Your task to perform on an android device: manage bookmarks in the chrome app Image 0: 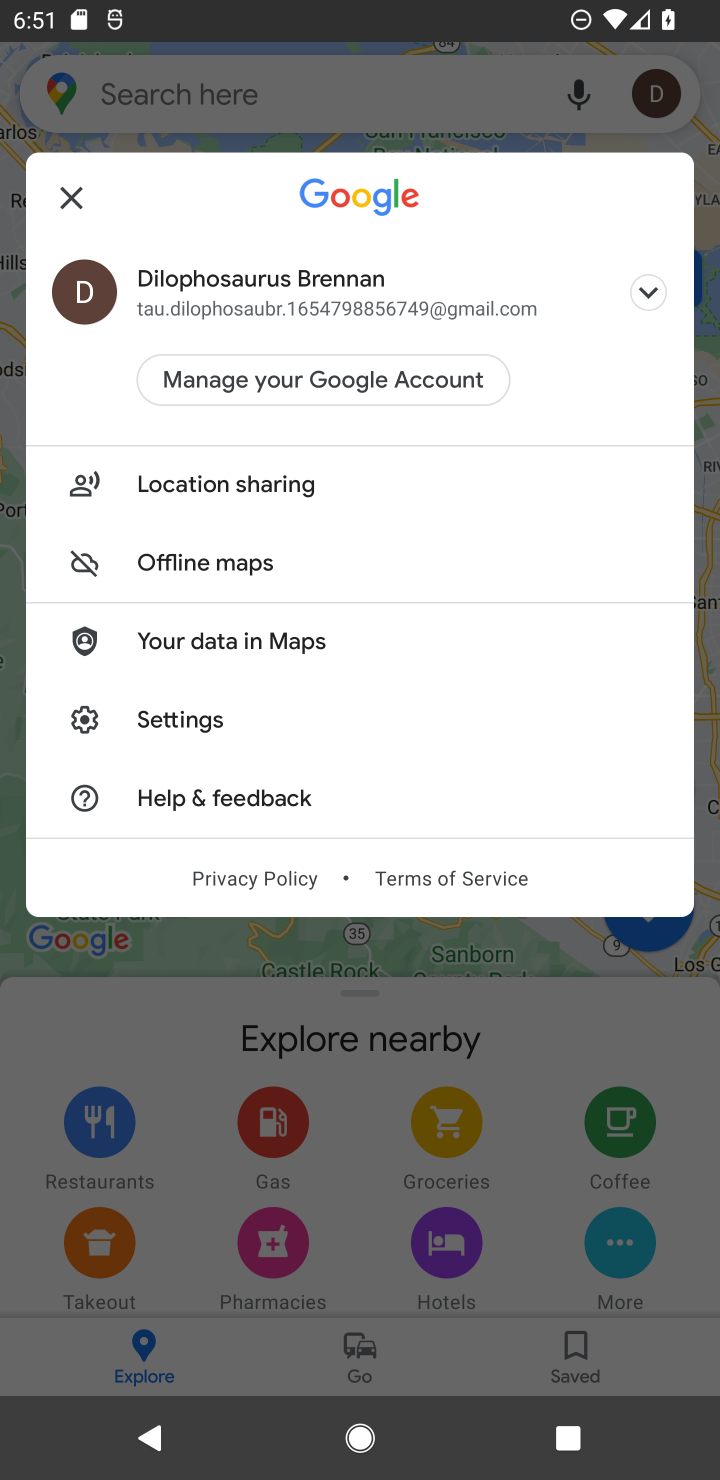
Step 0: press home button
Your task to perform on an android device: manage bookmarks in the chrome app Image 1: 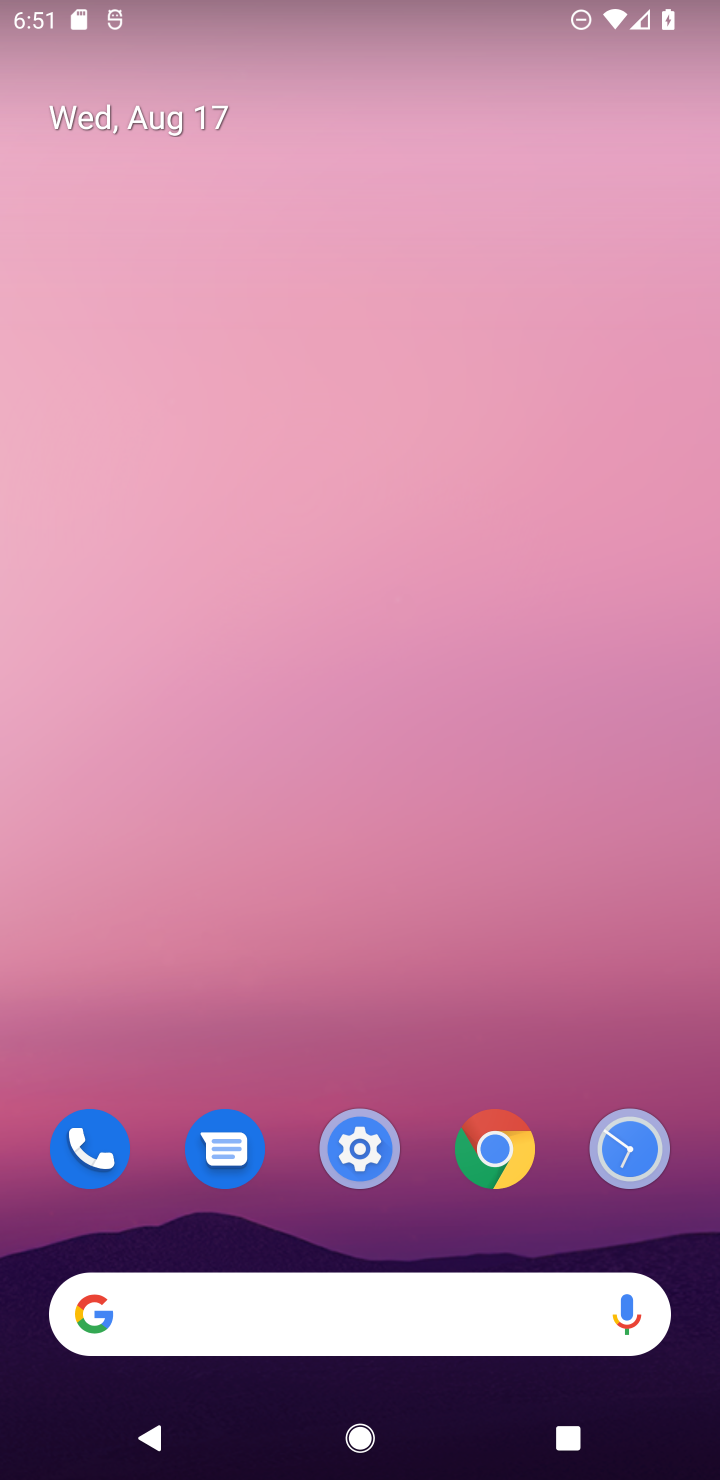
Step 1: click (485, 1159)
Your task to perform on an android device: manage bookmarks in the chrome app Image 2: 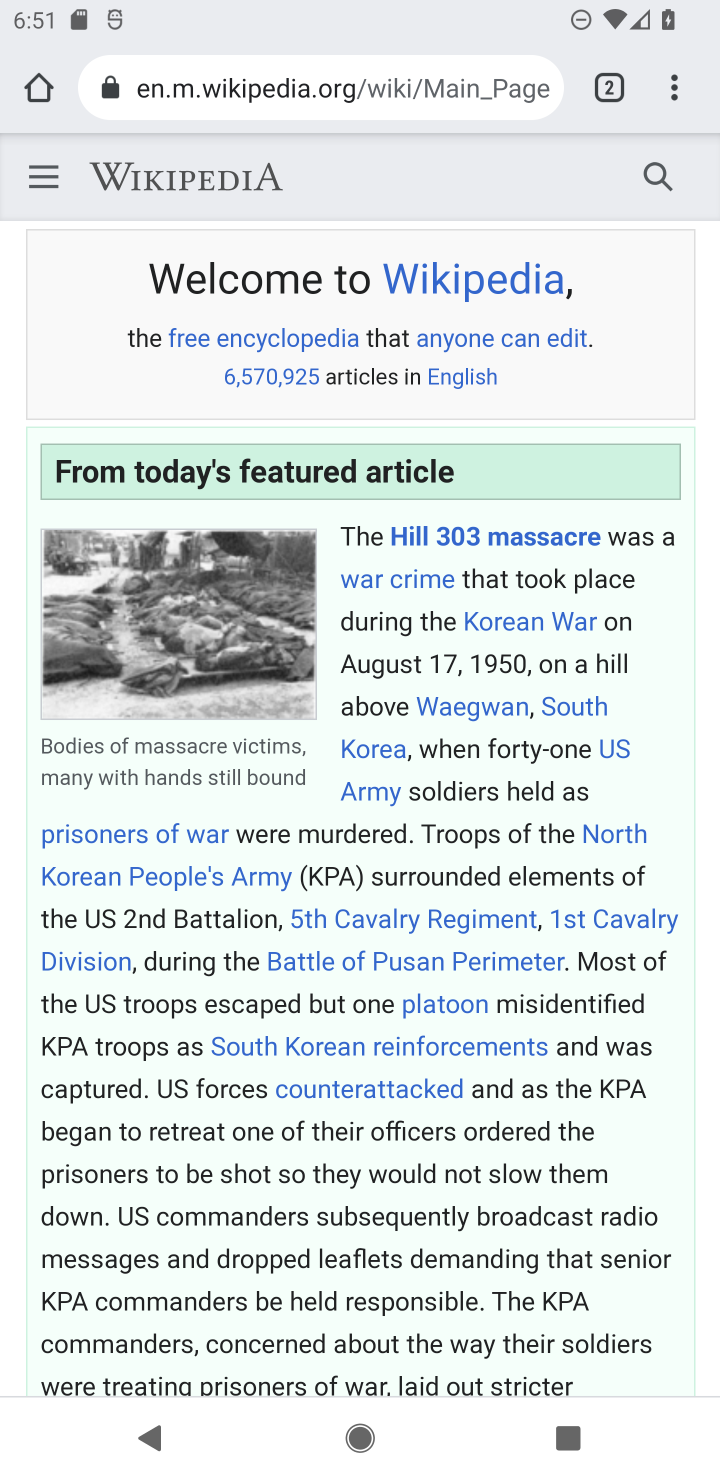
Step 2: click (675, 88)
Your task to perform on an android device: manage bookmarks in the chrome app Image 3: 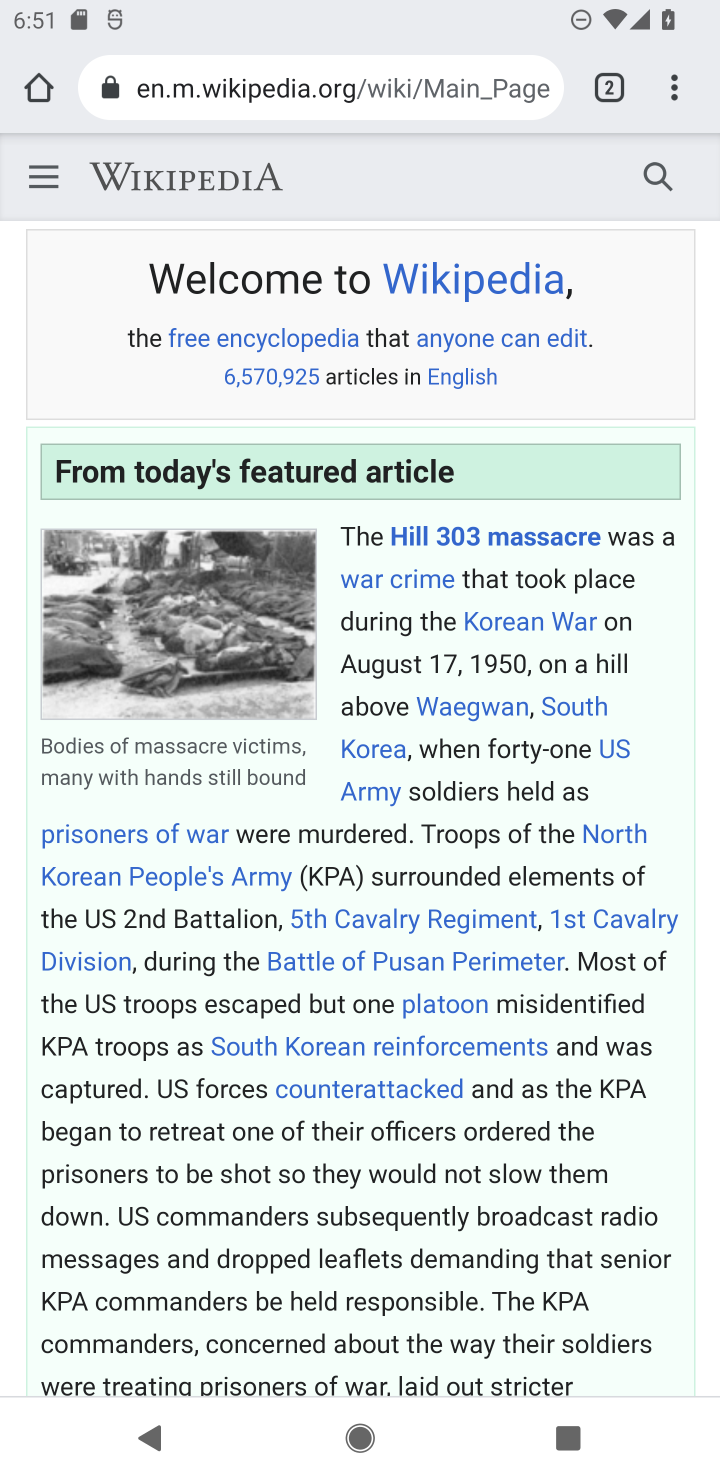
Step 3: click (656, 85)
Your task to perform on an android device: manage bookmarks in the chrome app Image 4: 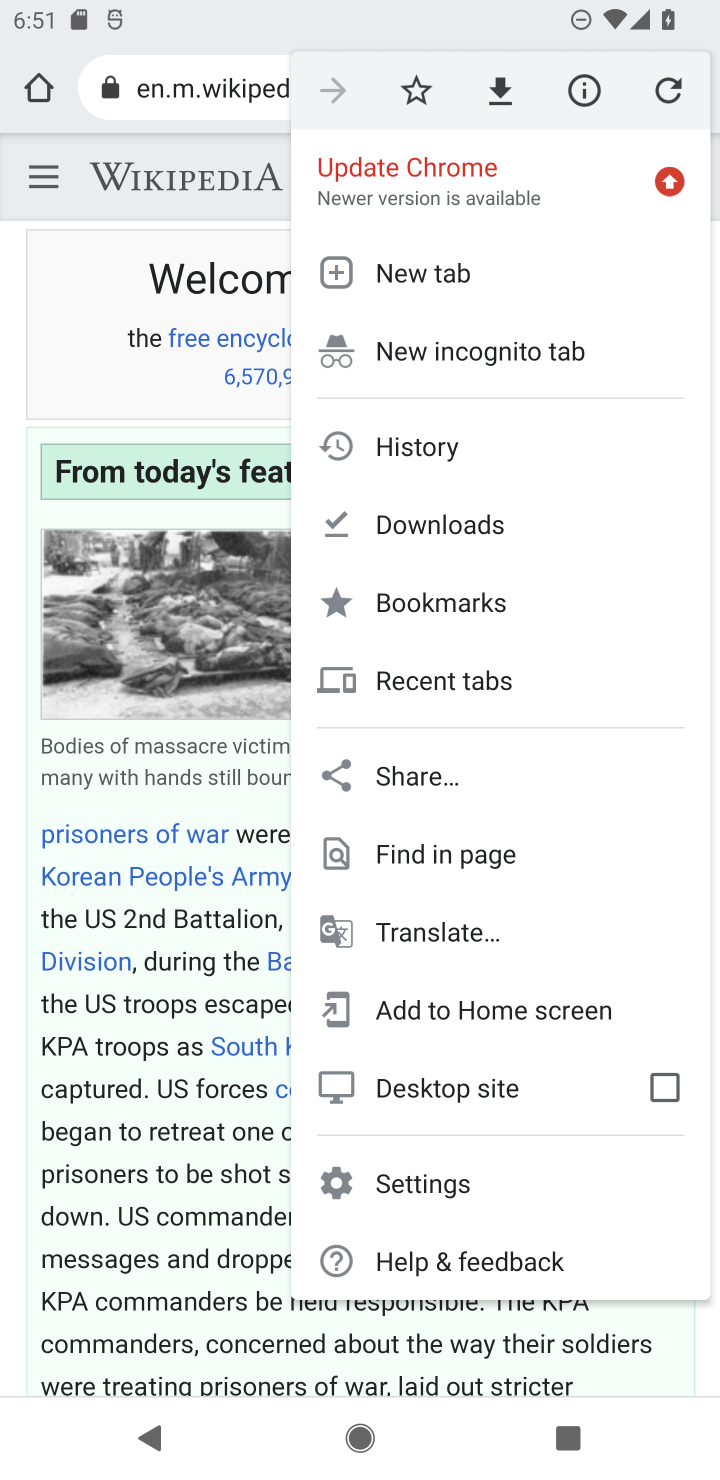
Step 4: click (405, 593)
Your task to perform on an android device: manage bookmarks in the chrome app Image 5: 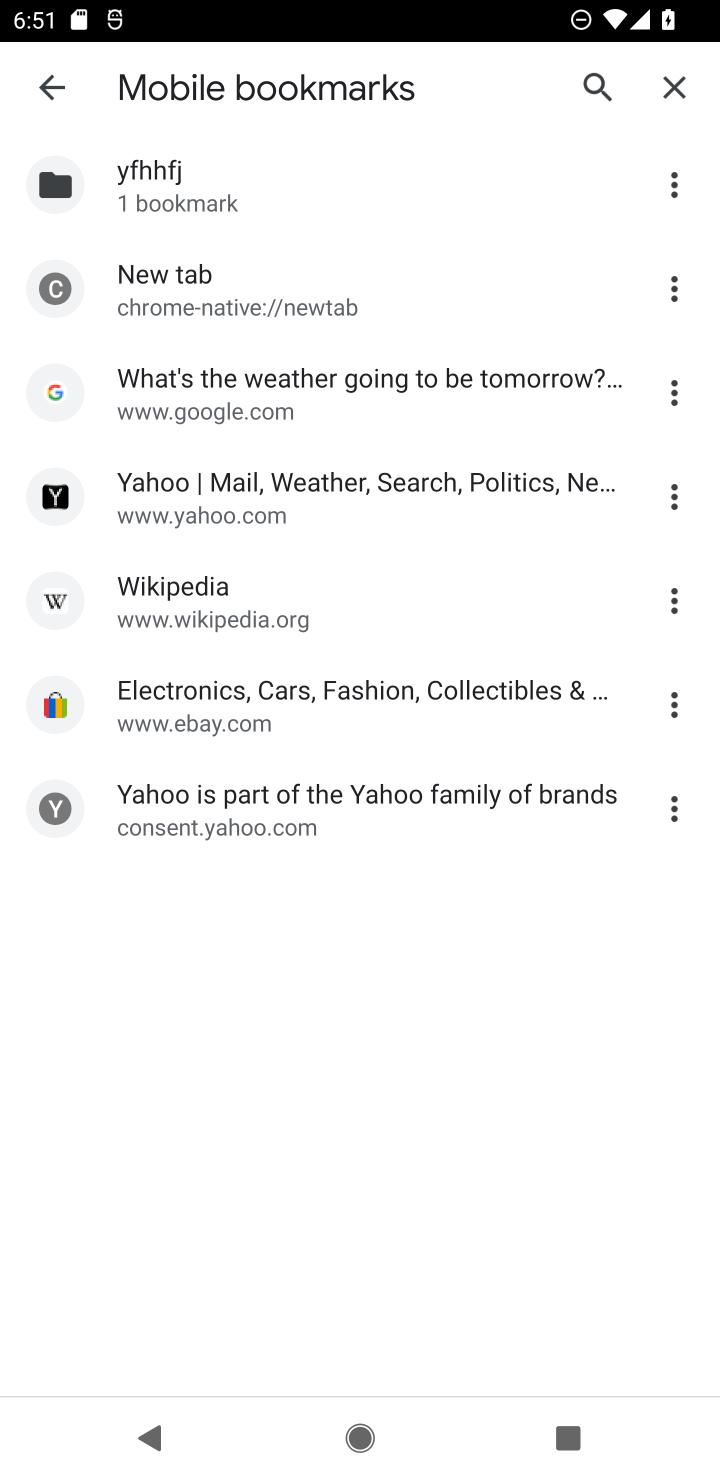
Step 5: click (668, 184)
Your task to perform on an android device: manage bookmarks in the chrome app Image 6: 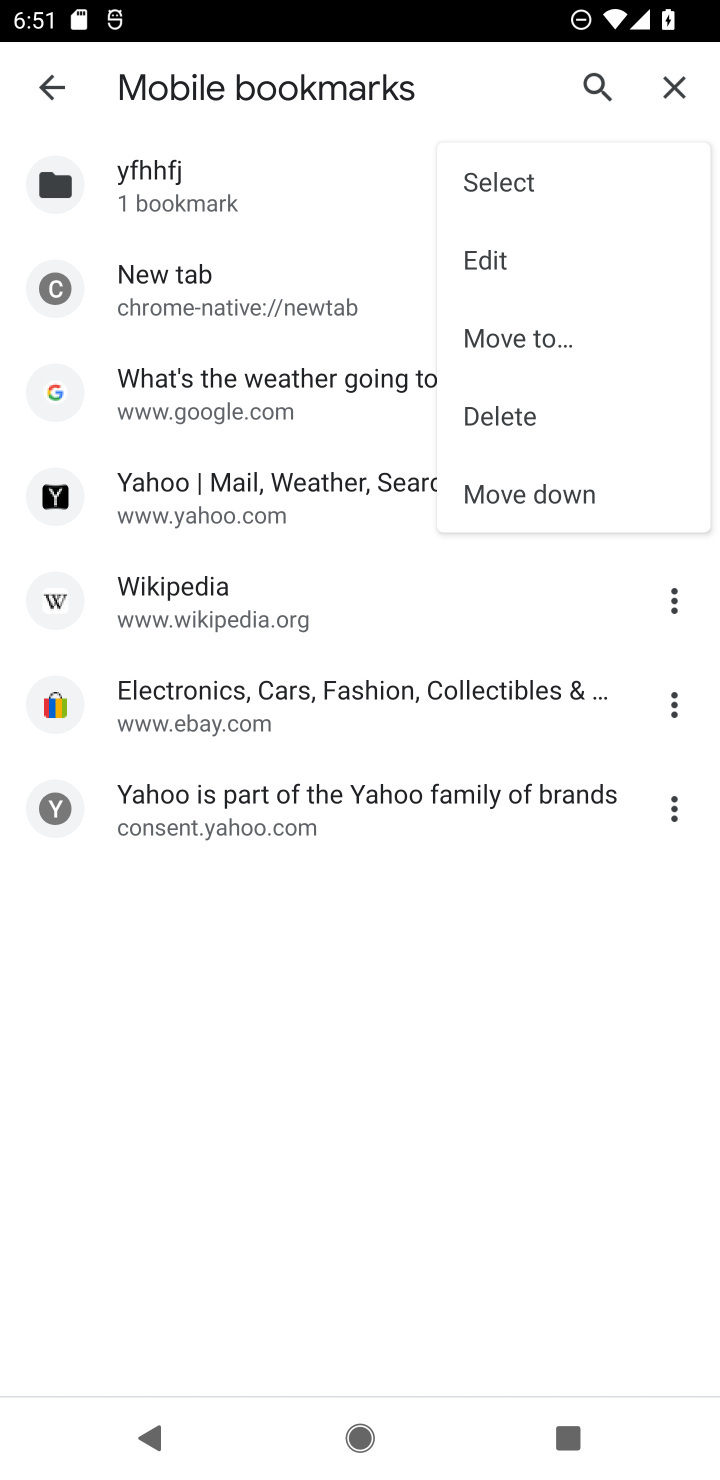
Step 6: click (499, 254)
Your task to perform on an android device: manage bookmarks in the chrome app Image 7: 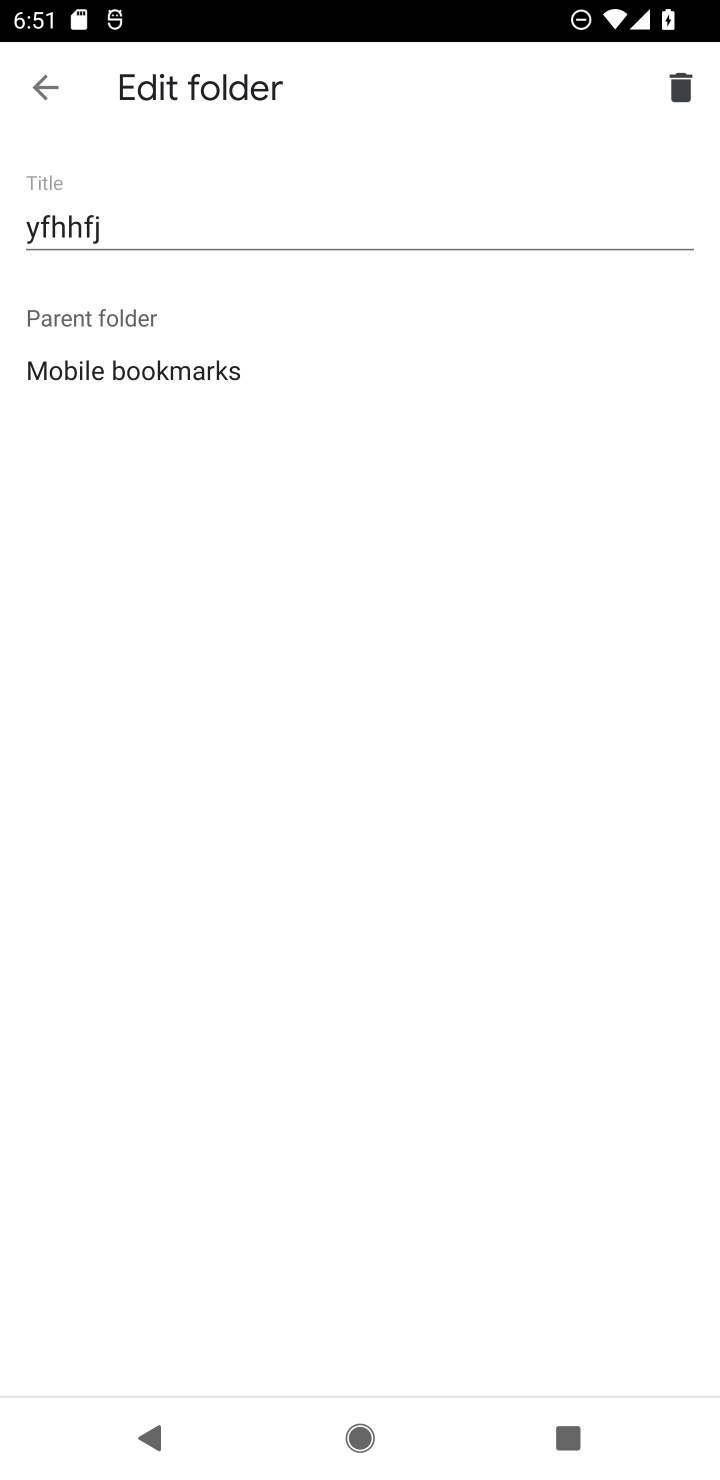
Step 7: task complete